Your task to perform on an android device: change the upload size in google photos Image 0: 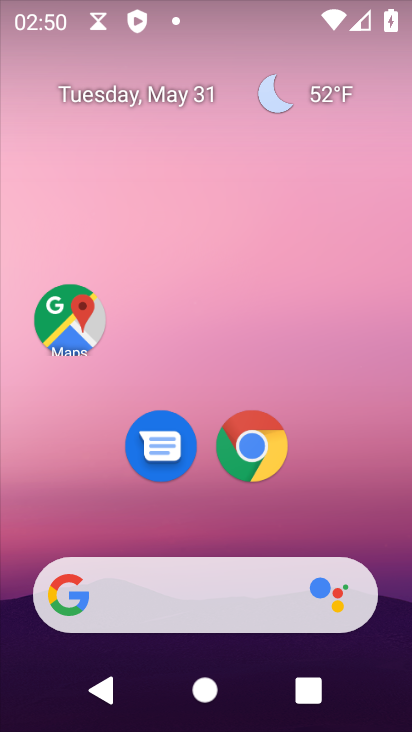
Step 0: drag from (321, 529) to (244, 19)
Your task to perform on an android device: change the upload size in google photos Image 1: 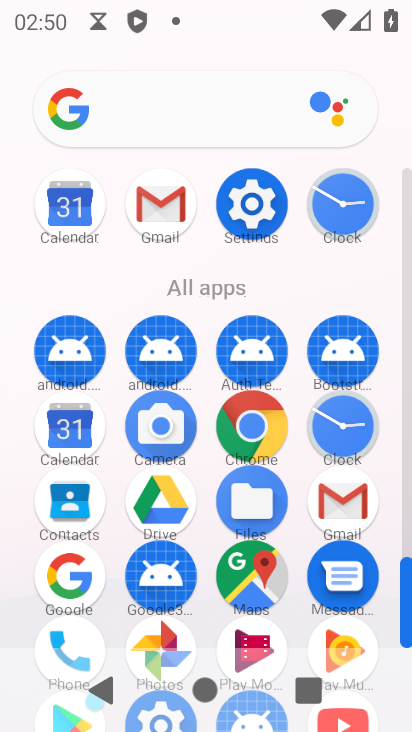
Step 1: drag from (301, 290) to (310, 63)
Your task to perform on an android device: change the upload size in google photos Image 2: 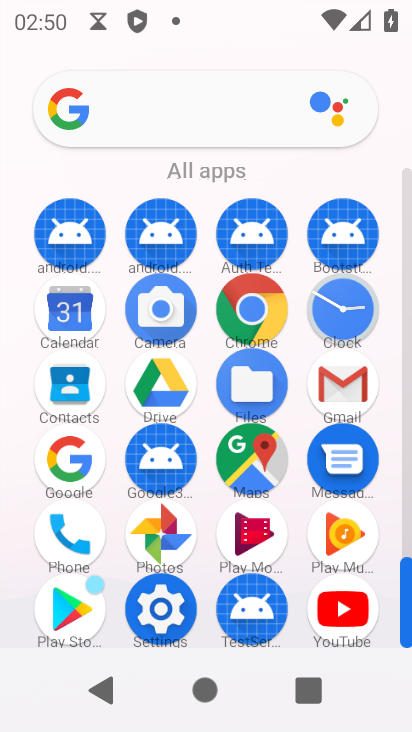
Step 2: click (163, 529)
Your task to perform on an android device: change the upload size in google photos Image 3: 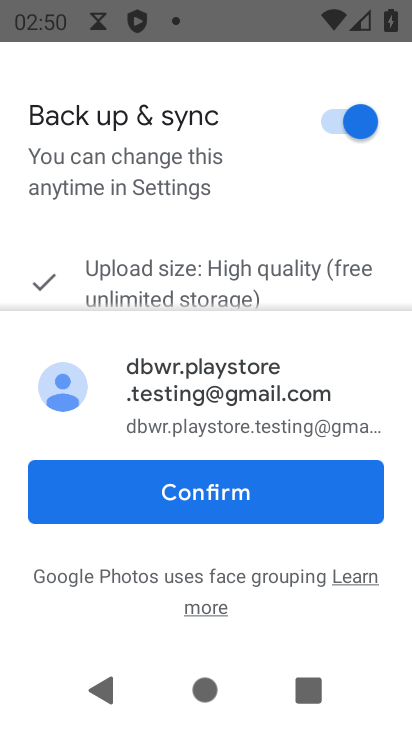
Step 3: click (233, 496)
Your task to perform on an android device: change the upload size in google photos Image 4: 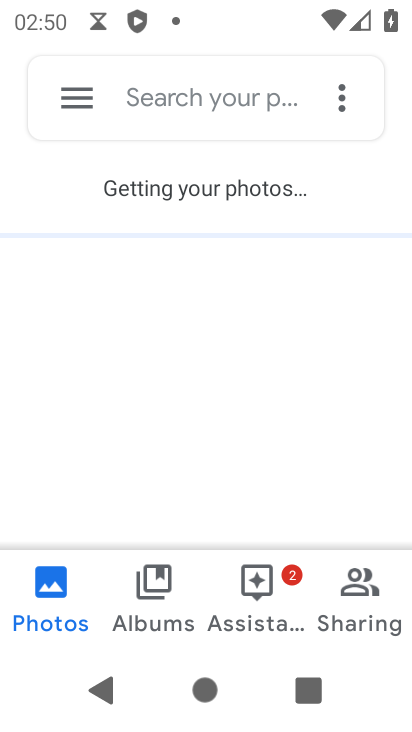
Step 4: click (74, 100)
Your task to perform on an android device: change the upload size in google photos Image 5: 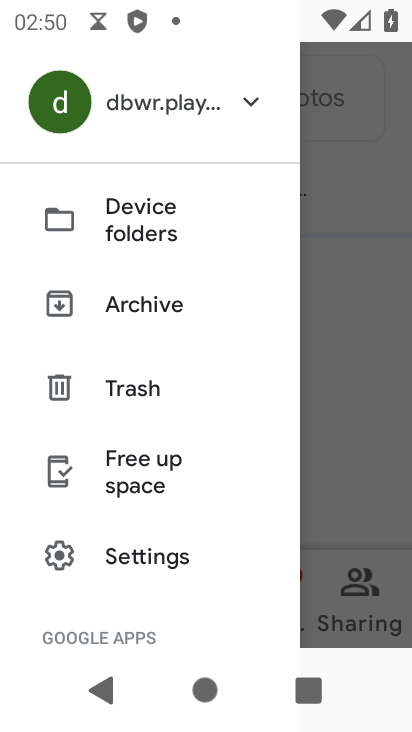
Step 5: click (155, 553)
Your task to perform on an android device: change the upload size in google photos Image 6: 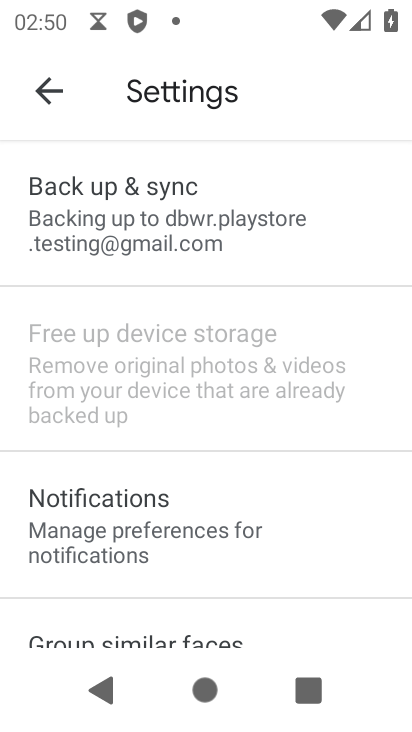
Step 6: click (101, 197)
Your task to perform on an android device: change the upload size in google photos Image 7: 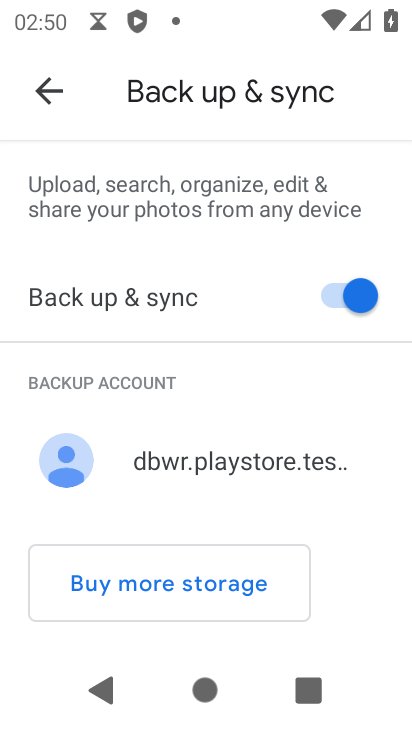
Step 7: drag from (296, 464) to (268, 351)
Your task to perform on an android device: change the upload size in google photos Image 8: 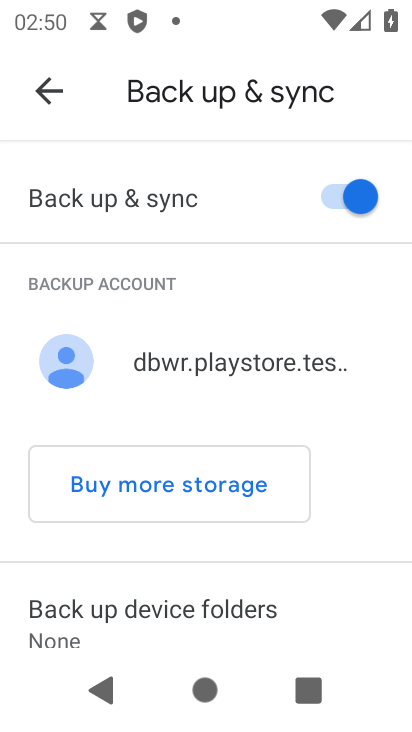
Step 8: drag from (310, 378) to (270, 173)
Your task to perform on an android device: change the upload size in google photos Image 9: 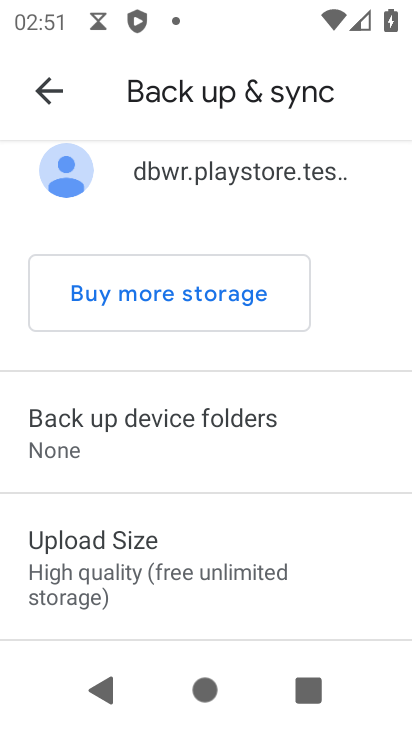
Step 9: click (123, 551)
Your task to perform on an android device: change the upload size in google photos Image 10: 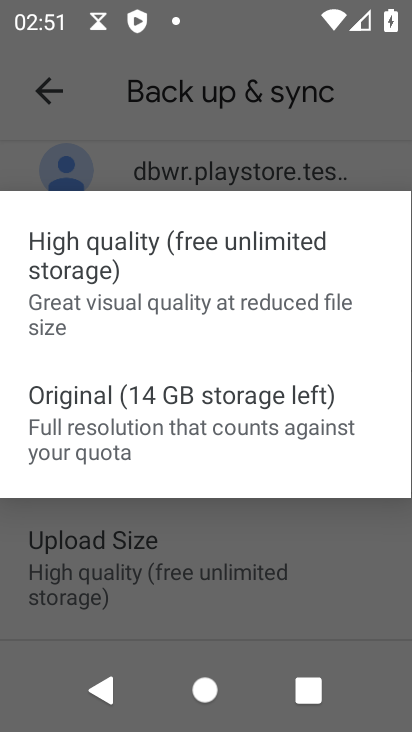
Step 10: click (172, 441)
Your task to perform on an android device: change the upload size in google photos Image 11: 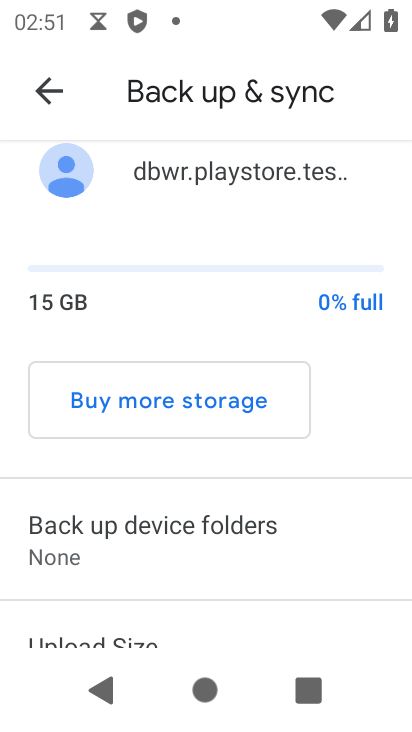
Step 11: task complete